Your task to perform on an android device: Go to internet settings Image 0: 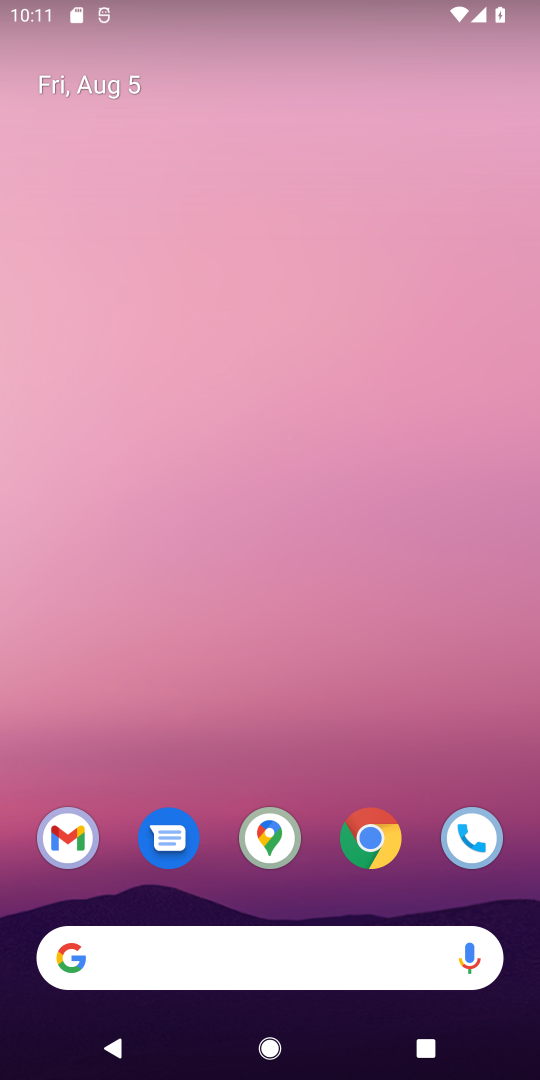
Step 0: drag from (119, 503) to (95, 168)
Your task to perform on an android device: Go to internet settings Image 1: 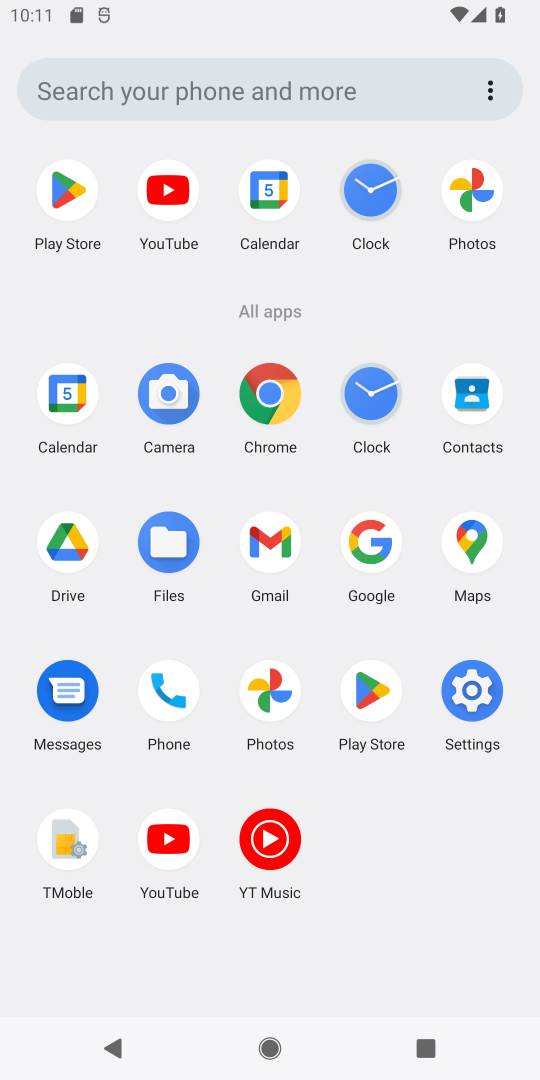
Step 1: click (458, 676)
Your task to perform on an android device: Go to internet settings Image 2: 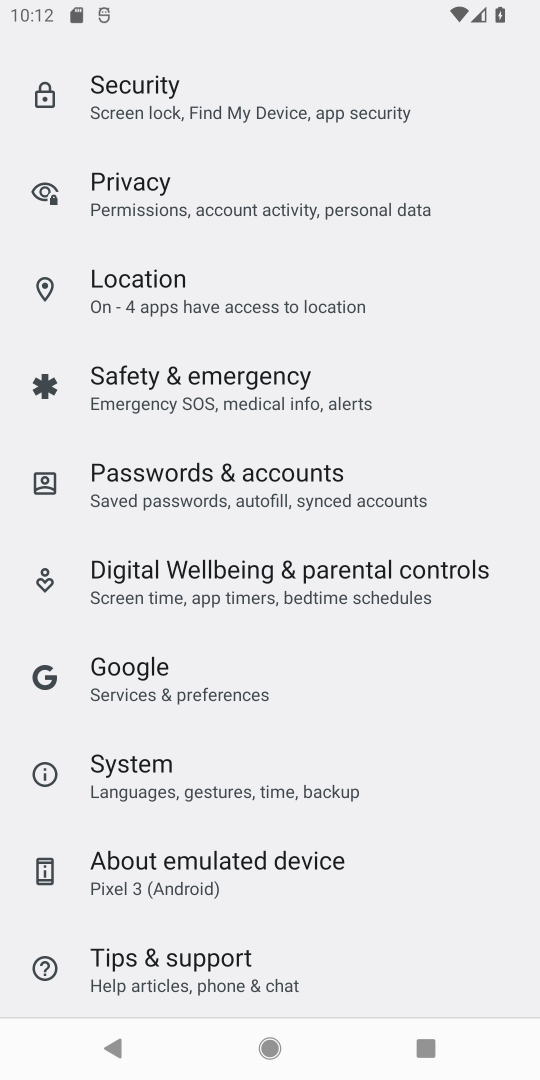
Step 2: drag from (337, 206) to (361, 518)
Your task to perform on an android device: Go to internet settings Image 3: 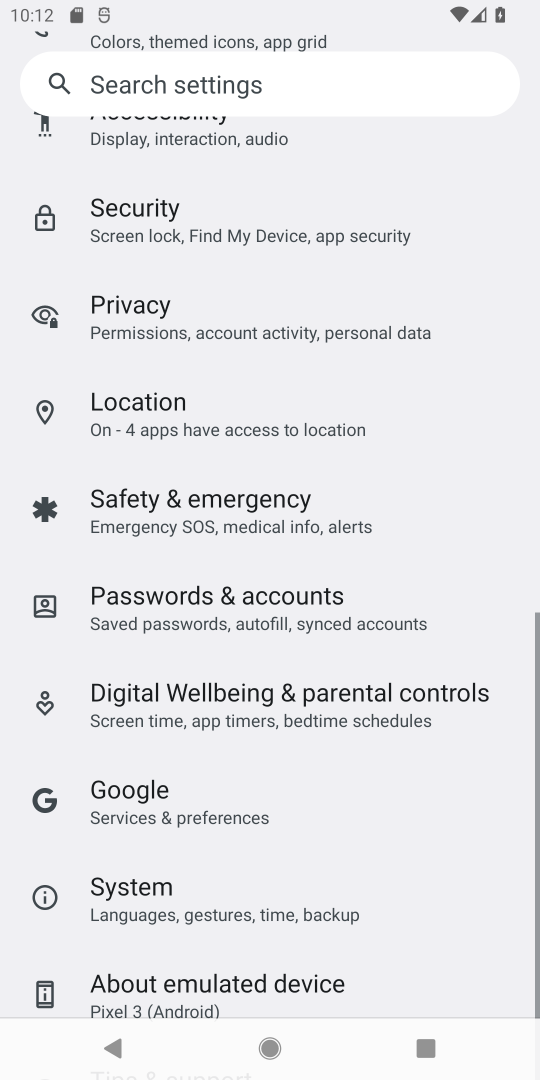
Step 3: click (361, 518)
Your task to perform on an android device: Go to internet settings Image 4: 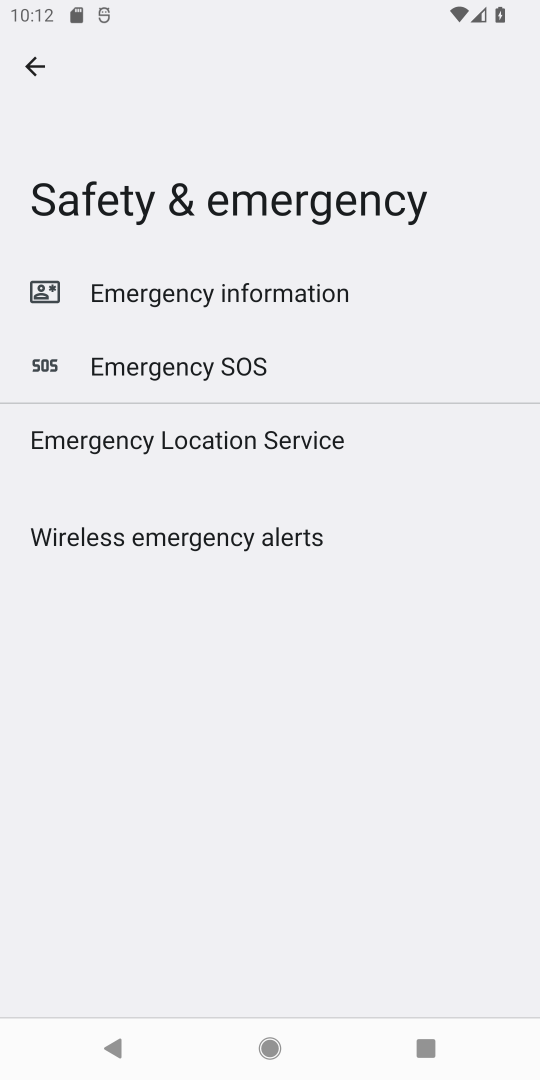
Step 4: drag from (322, 253) to (148, 791)
Your task to perform on an android device: Go to internet settings Image 5: 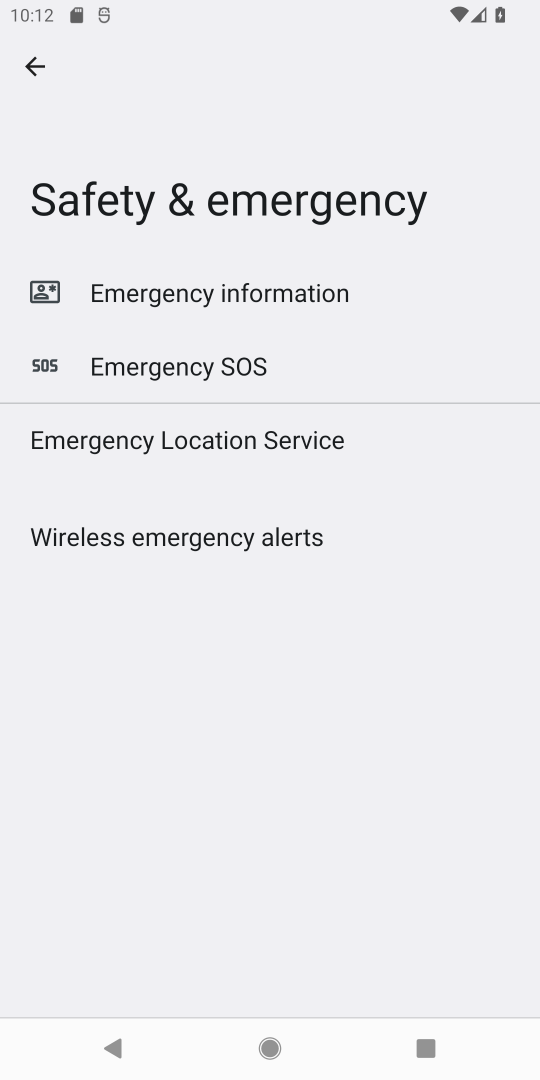
Step 5: click (21, 32)
Your task to perform on an android device: Go to internet settings Image 6: 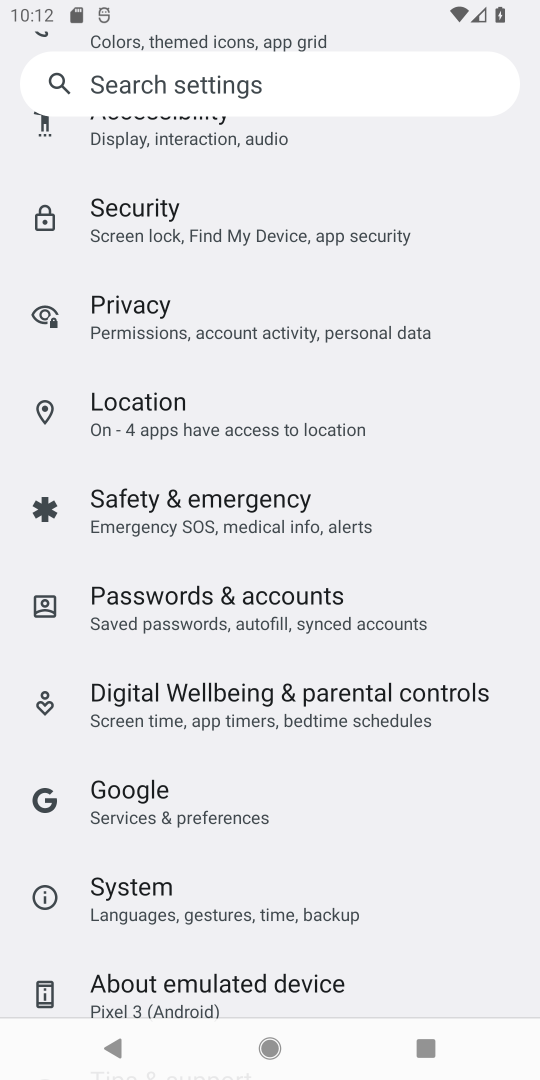
Step 6: drag from (422, 198) to (514, 757)
Your task to perform on an android device: Go to internet settings Image 7: 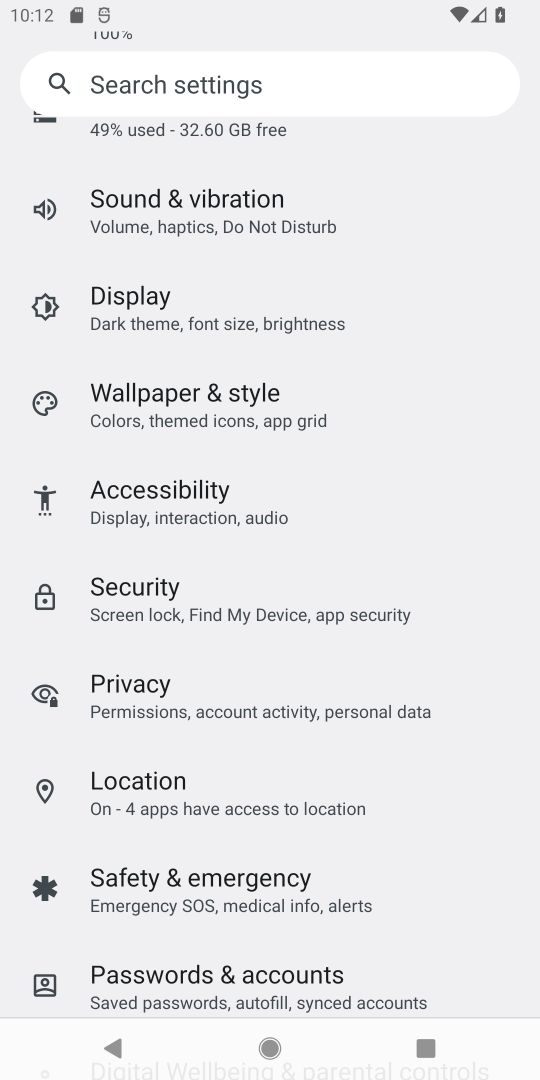
Step 7: drag from (445, 321) to (445, 786)
Your task to perform on an android device: Go to internet settings Image 8: 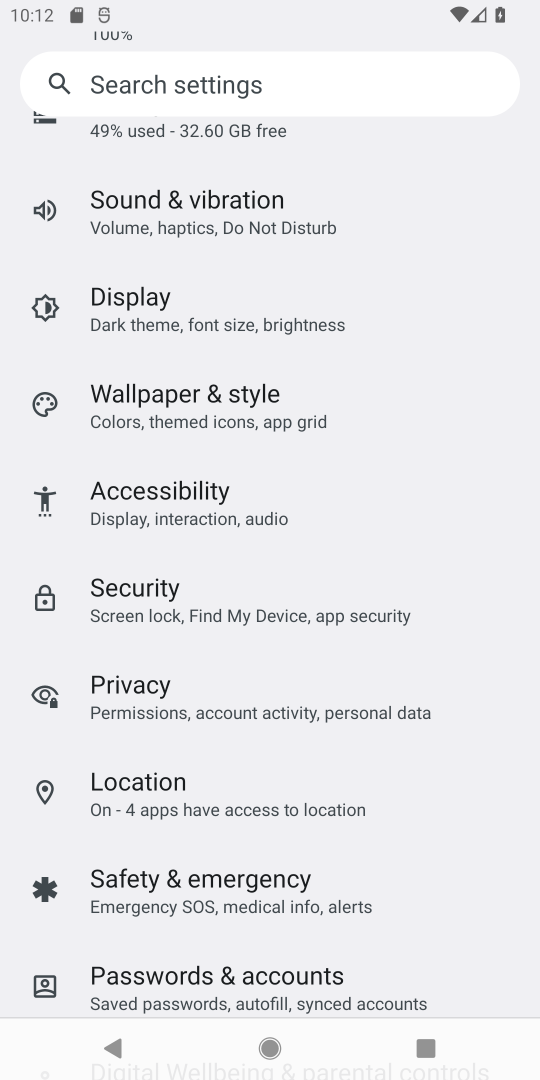
Step 8: drag from (423, 187) to (508, 683)
Your task to perform on an android device: Go to internet settings Image 9: 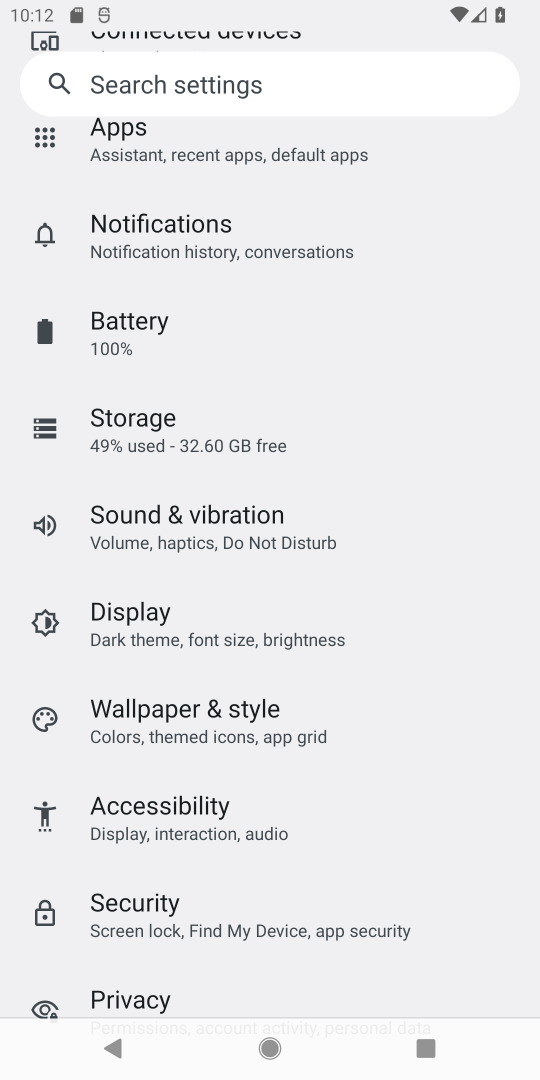
Step 9: drag from (349, 292) to (451, 789)
Your task to perform on an android device: Go to internet settings Image 10: 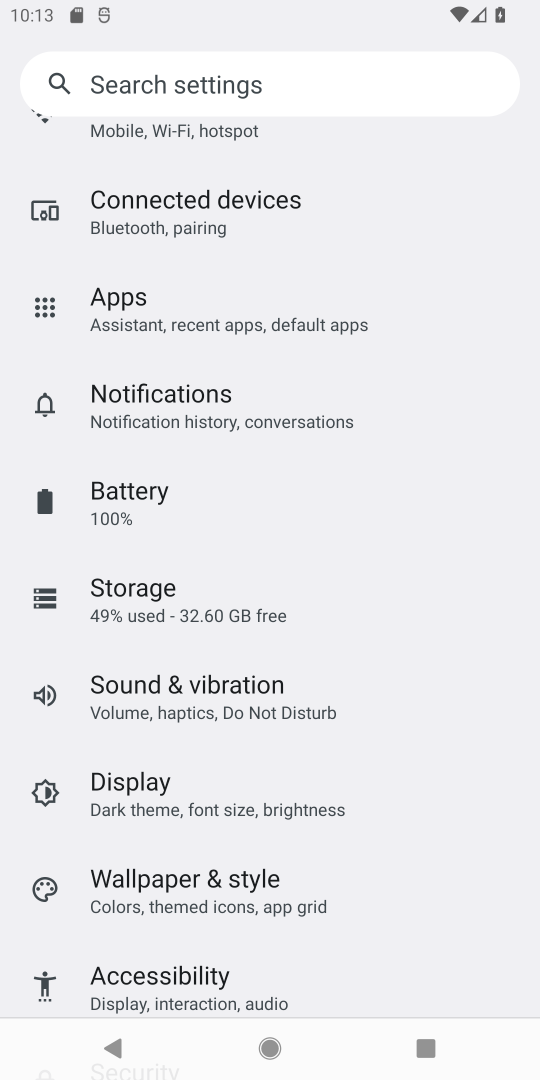
Step 10: click (451, 789)
Your task to perform on an android device: Go to internet settings Image 11: 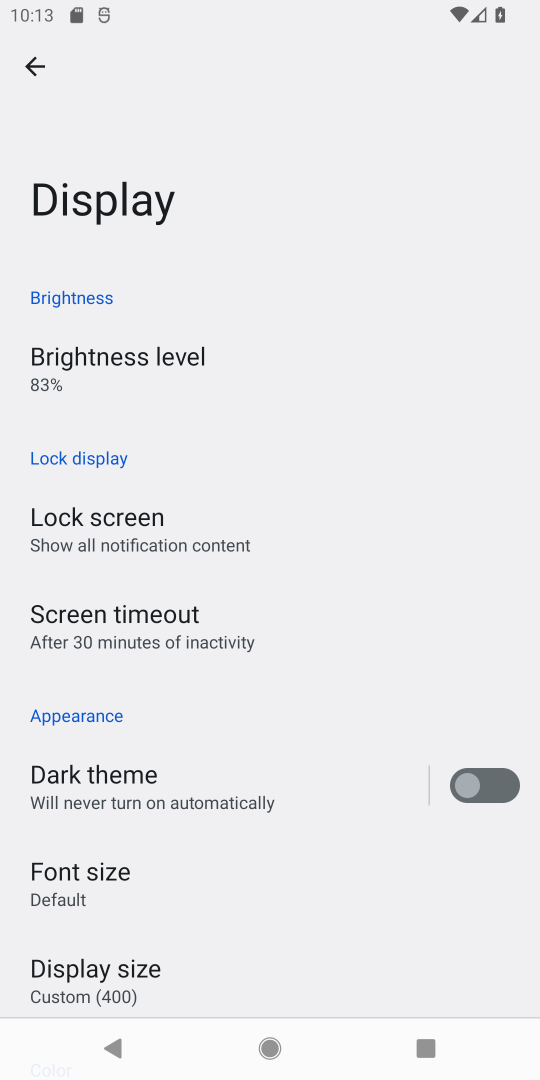
Step 11: click (35, 62)
Your task to perform on an android device: Go to internet settings Image 12: 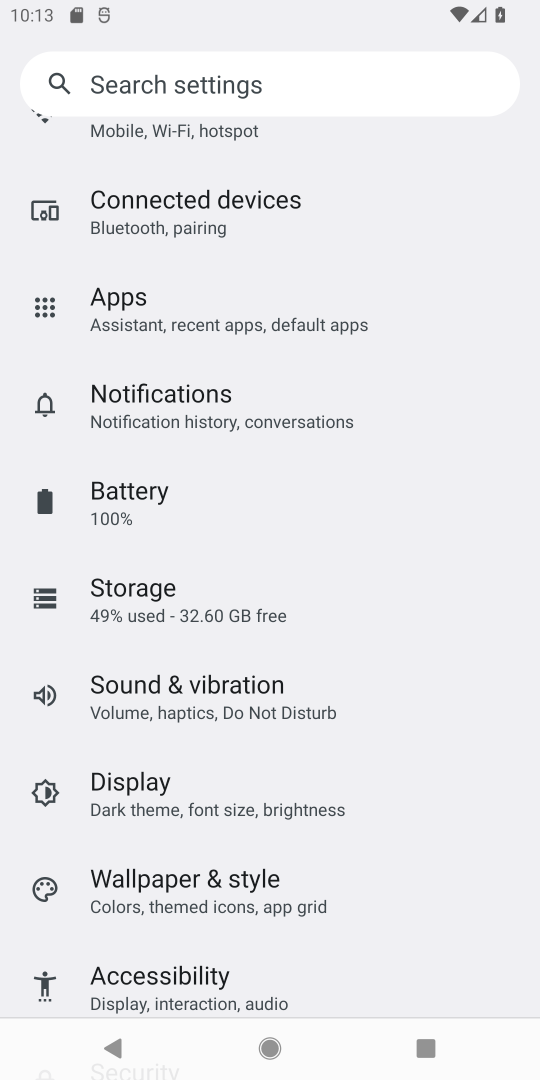
Step 12: click (143, 132)
Your task to perform on an android device: Go to internet settings Image 13: 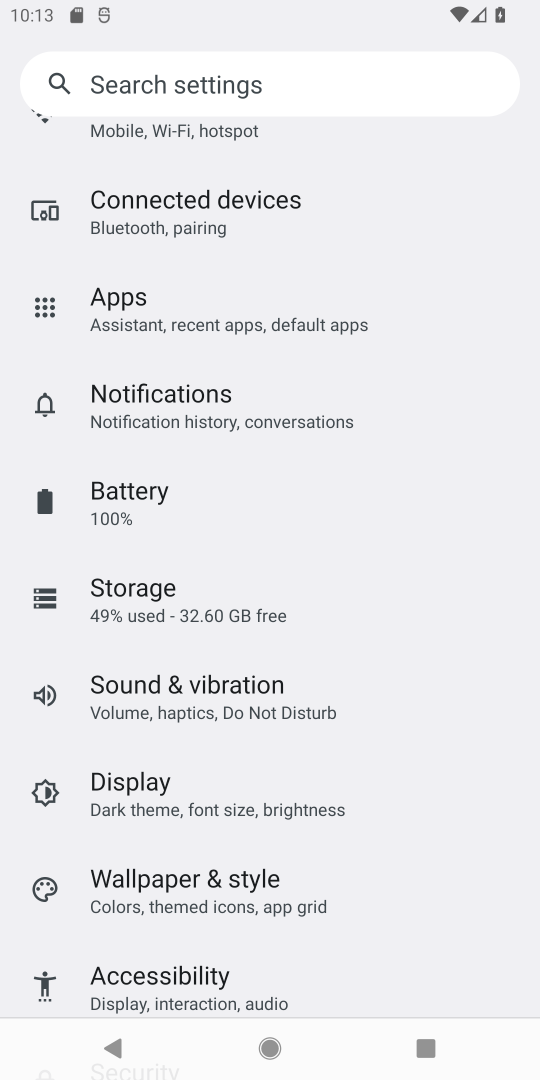
Step 13: task complete